Your task to perform on an android device: Open Google Chrome and click the shortcut for Amazon.com Image 0: 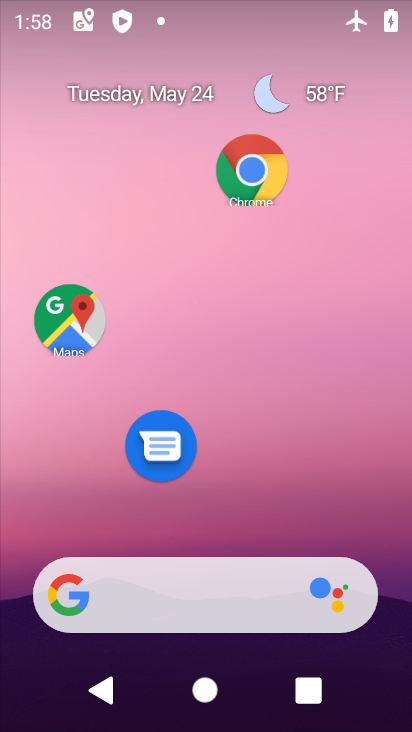
Step 0: click (245, 184)
Your task to perform on an android device: Open Google Chrome and click the shortcut for Amazon.com Image 1: 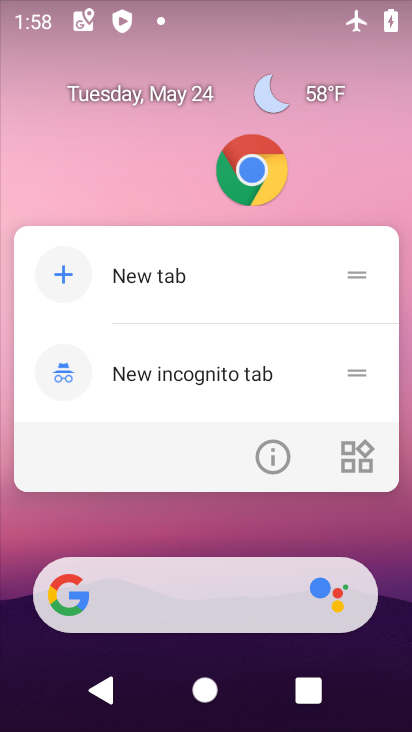
Step 1: click (245, 184)
Your task to perform on an android device: Open Google Chrome and click the shortcut for Amazon.com Image 2: 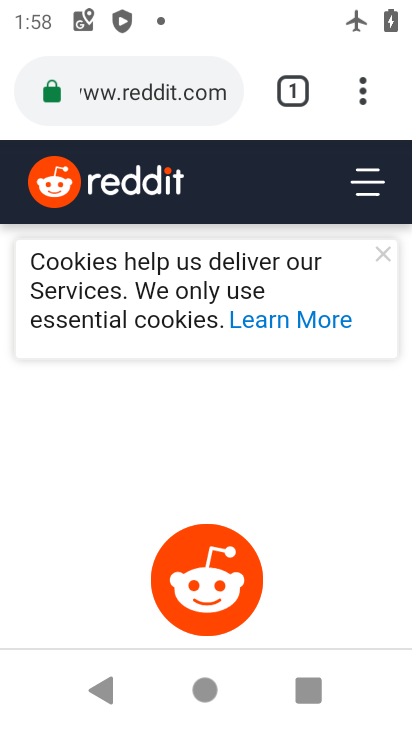
Step 2: click (203, 103)
Your task to perform on an android device: Open Google Chrome and click the shortcut for Amazon.com Image 3: 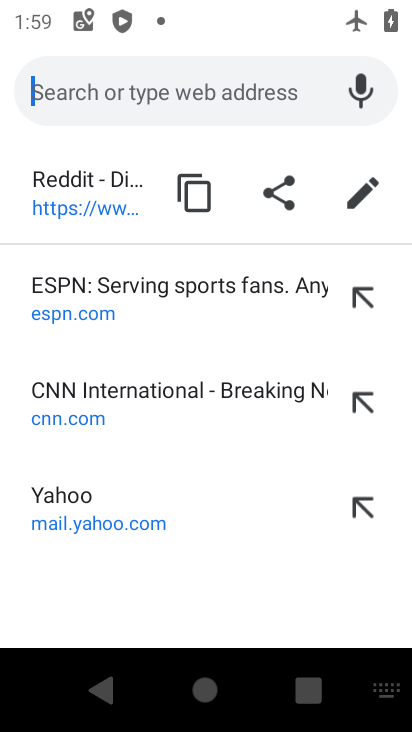
Step 3: type "amazon"
Your task to perform on an android device: Open Google Chrome and click the shortcut for Amazon.com Image 4: 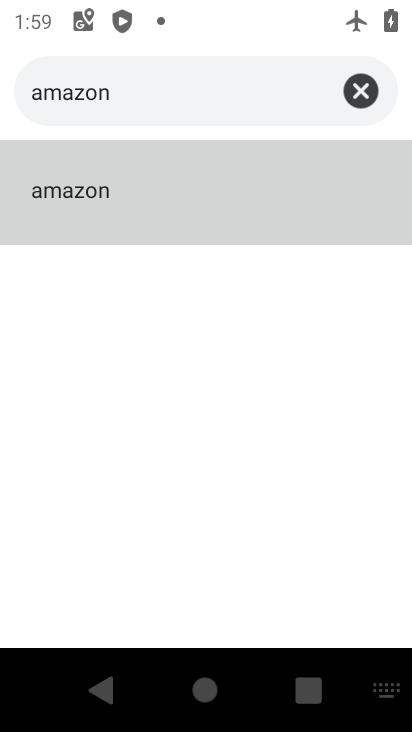
Step 4: click (245, 188)
Your task to perform on an android device: Open Google Chrome and click the shortcut for Amazon.com Image 5: 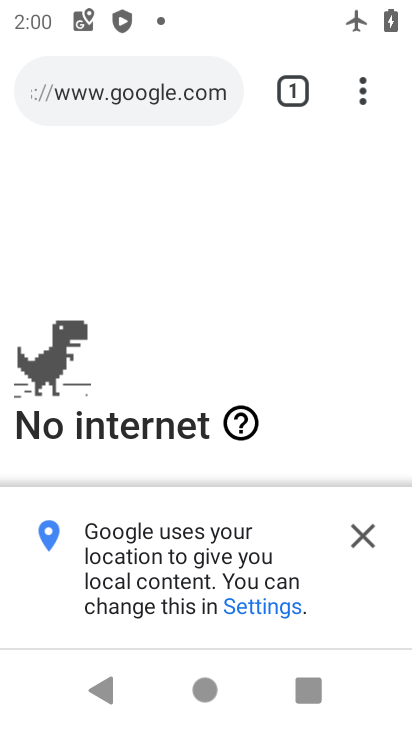
Step 5: task complete